Your task to perform on an android device: Add "macbook air" to the cart on newegg.com, then select checkout. Image 0: 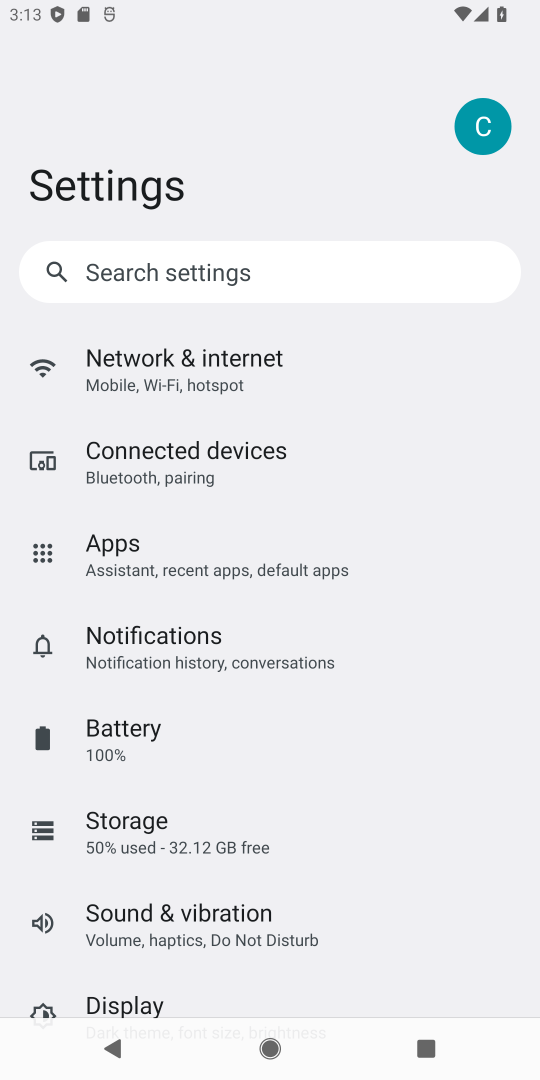
Step 0: press home button
Your task to perform on an android device: Add "macbook air" to the cart on newegg.com, then select checkout. Image 1: 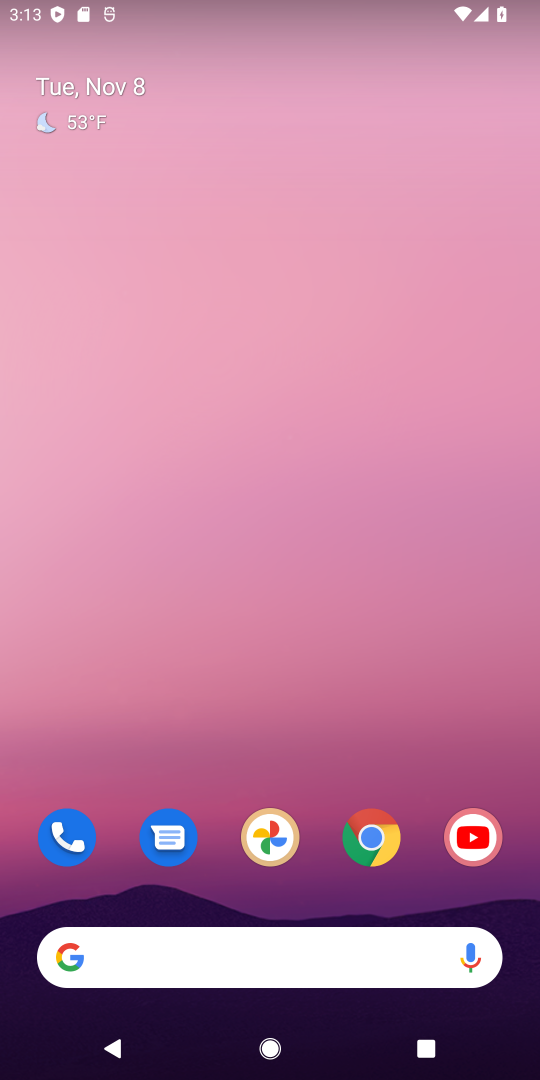
Step 1: click (367, 827)
Your task to perform on an android device: Add "macbook air" to the cart on newegg.com, then select checkout. Image 2: 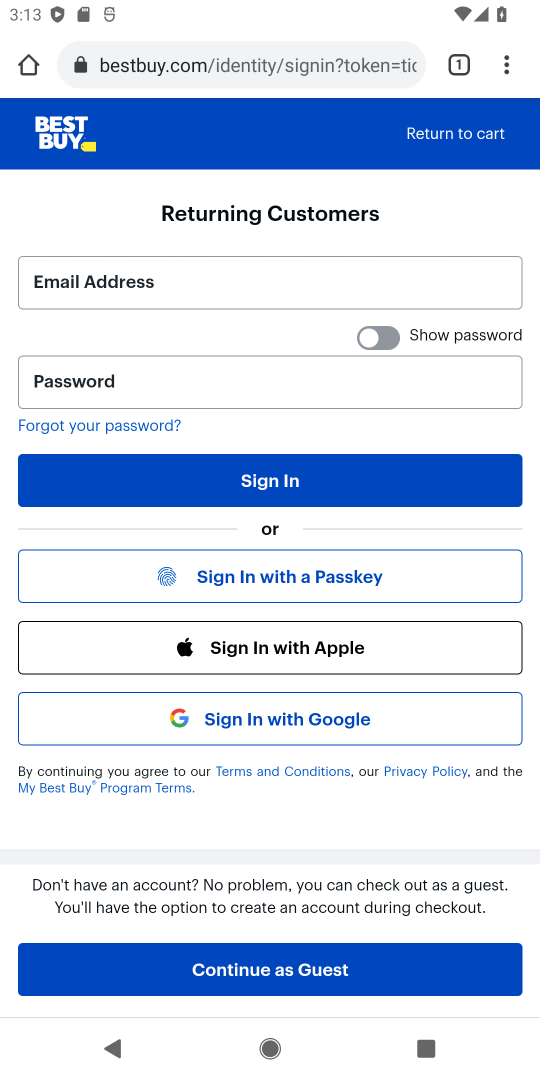
Step 2: click (245, 72)
Your task to perform on an android device: Add "macbook air" to the cart on newegg.com, then select checkout. Image 3: 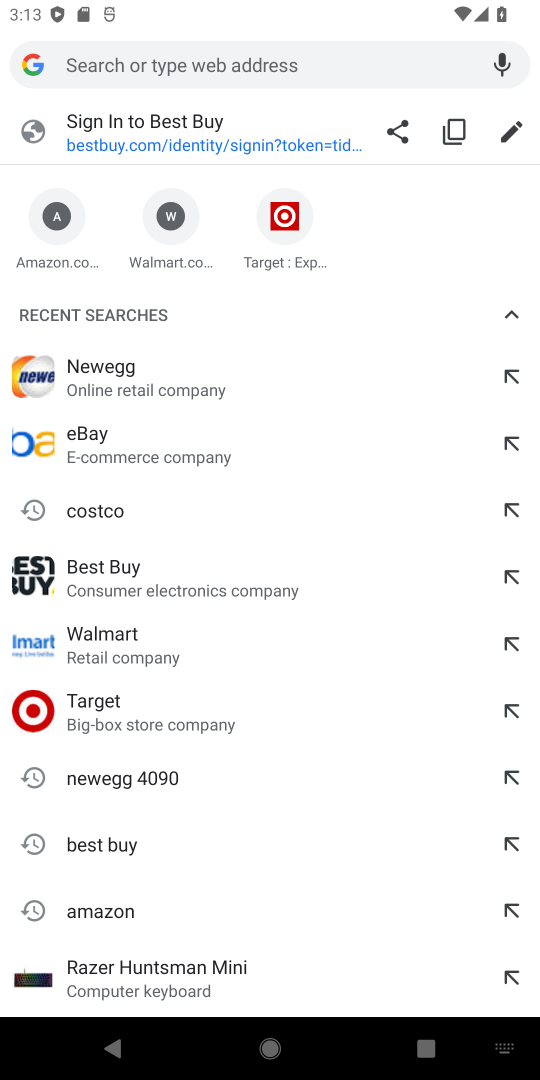
Step 3: click (90, 372)
Your task to perform on an android device: Add "macbook air" to the cart on newegg.com, then select checkout. Image 4: 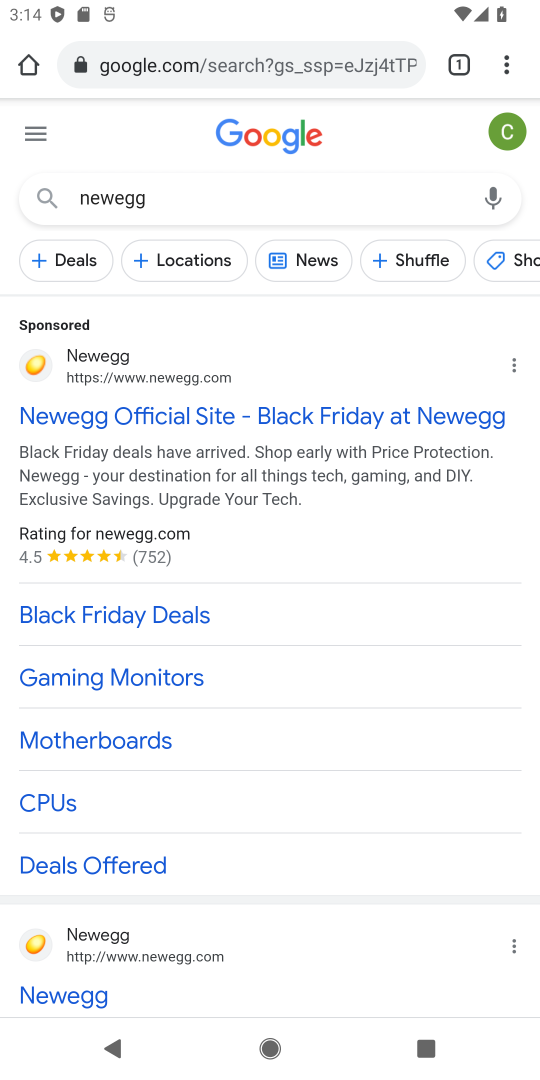
Step 4: click (54, 994)
Your task to perform on an android device: Add "macbook air" to the cart on newegg.com, then select checkout. Image 5: 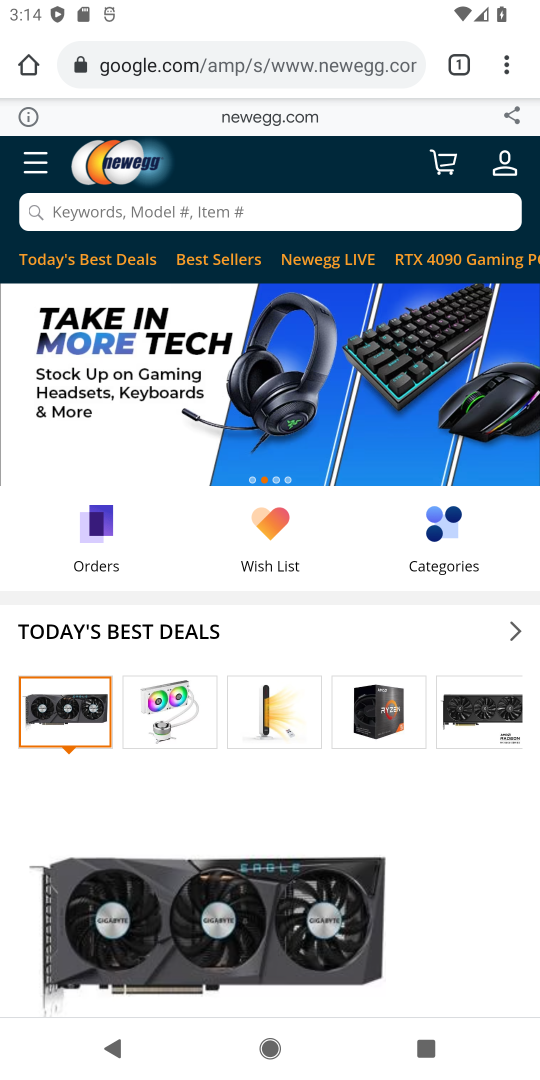
Step 5: click (133, 206)
Your task to perform on an android device: Add "macbook air" to the cart on newegg.com, then select checkout. Image 6: 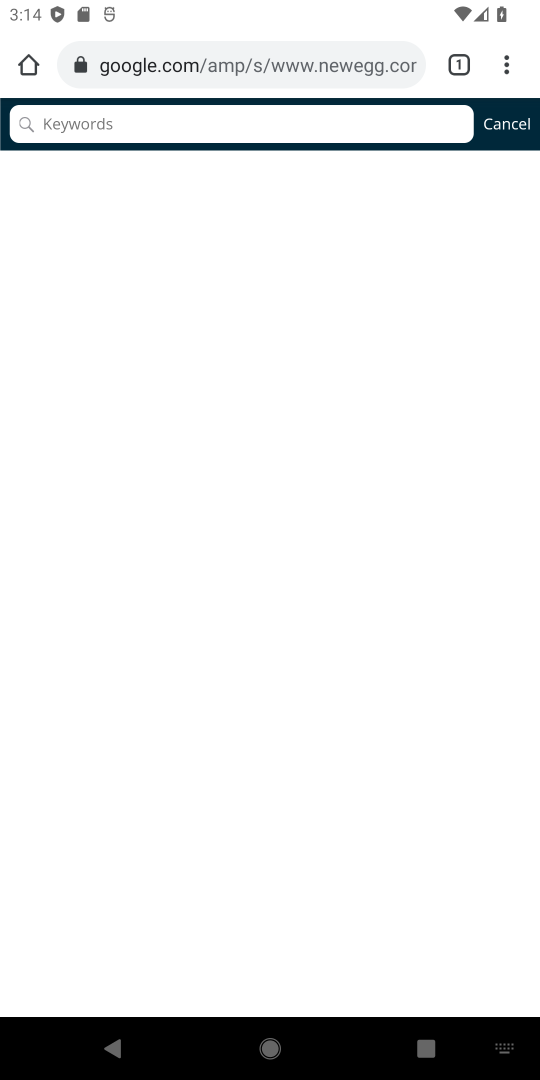
Step 6: type "macbook air"
Your task to perform on an android device: Add "macbook air" to the cart on newegg.com, then select checkout. Image 7: 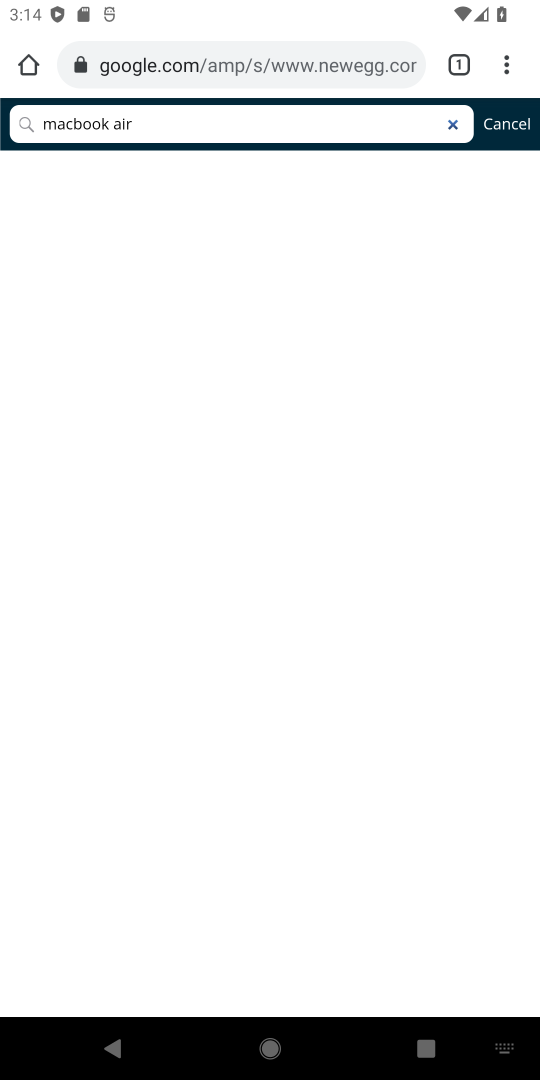
Step 7: click (458, 121)
Your task to perform on an android device: Add "macbook air" to the cart on newegg.com, then select checkout. Image 8: 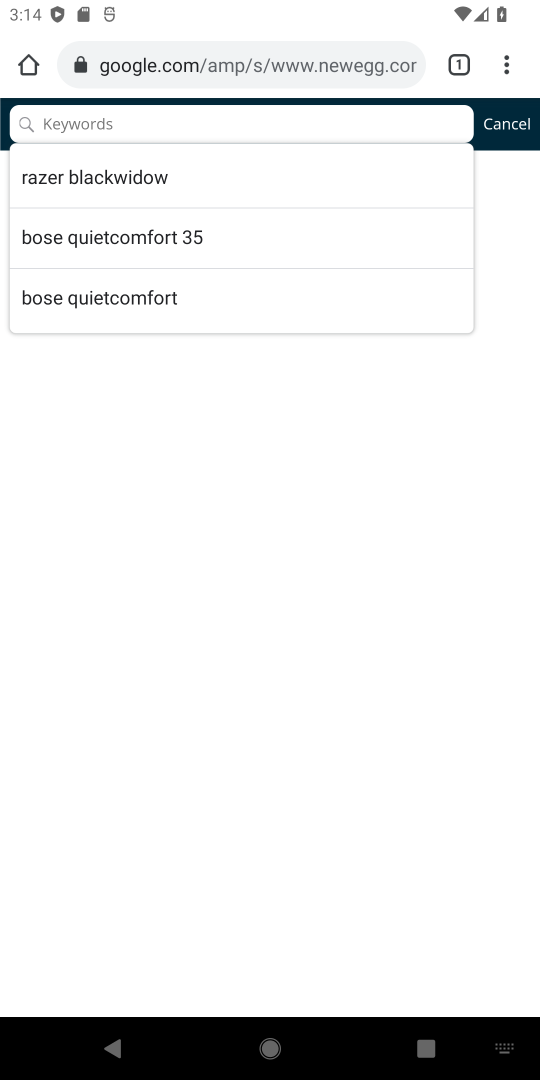
Step 8: press back button
Your task to perform on an android device: Add "macbook air" to the cart on newegg.com, then select checkout. Image 9: 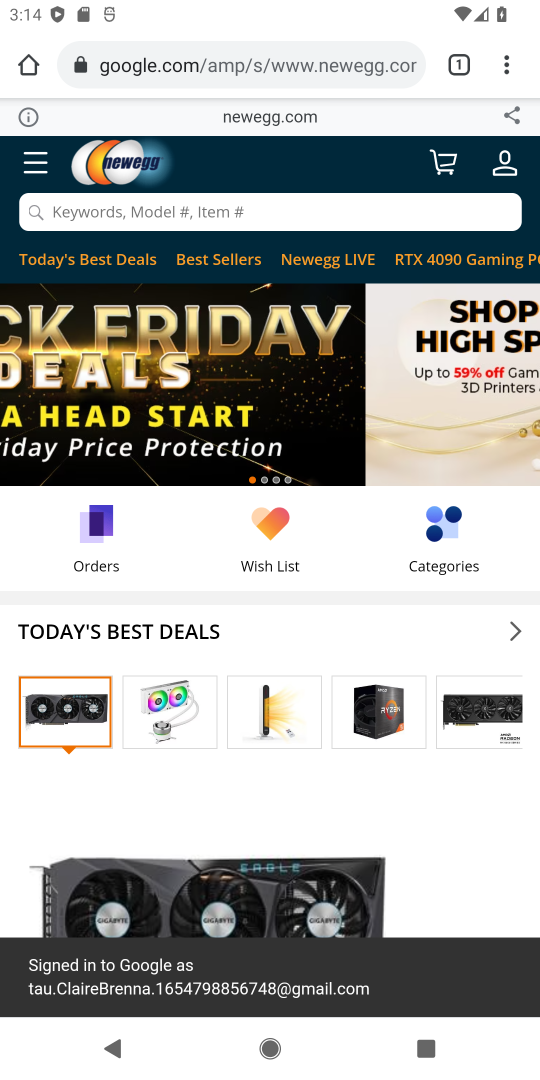
Step 9: click (230, 208)
Your task to perform on an android device: Add "macbook air" to the cart on newegg.com, then select checkout. Image 10: 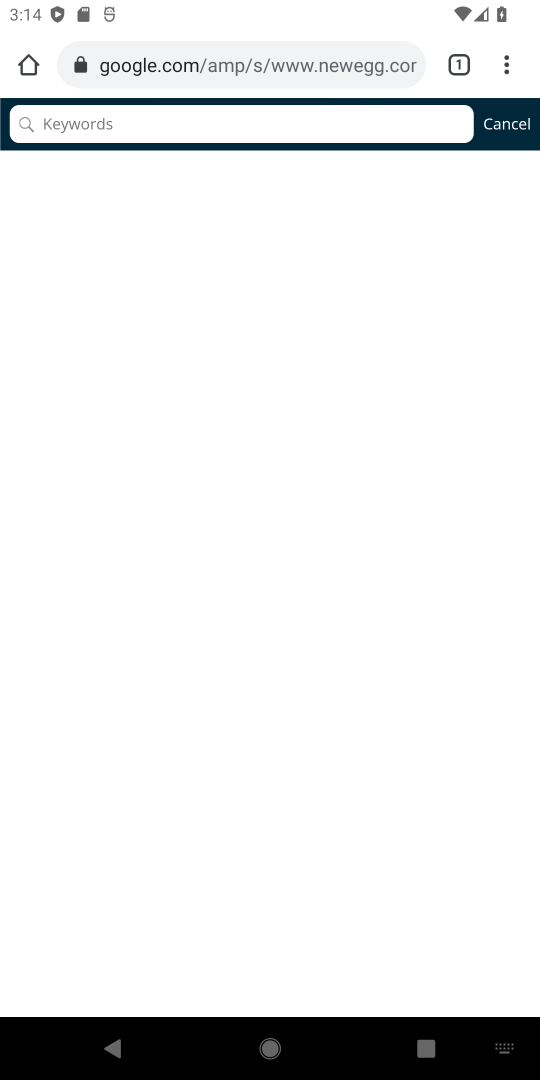
Step 10: type "macbook air"
Your task to perform on an android device: Add "macbook air" to the cart on newegg.com, then select checkout. Image 11: 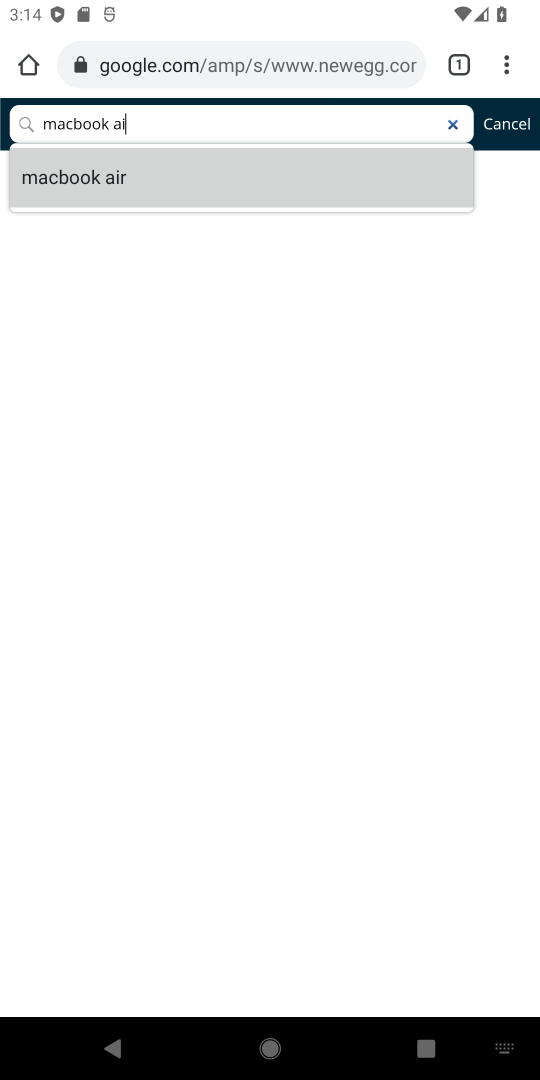
Step 11: type ""
Your task to perform on an android device: Add "macbook air" to the cart on newegg.com, then select checkout. Image 12: 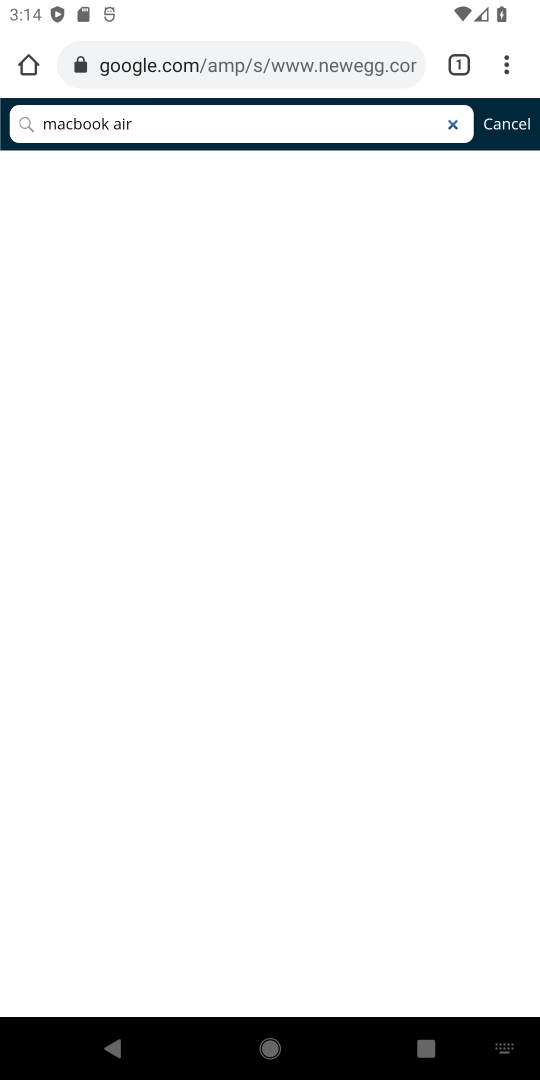
Step 12: type ""
Your task to perform on an android device: Add "macbook air" to the cart on newegg.com, then select checkout. Image 13: 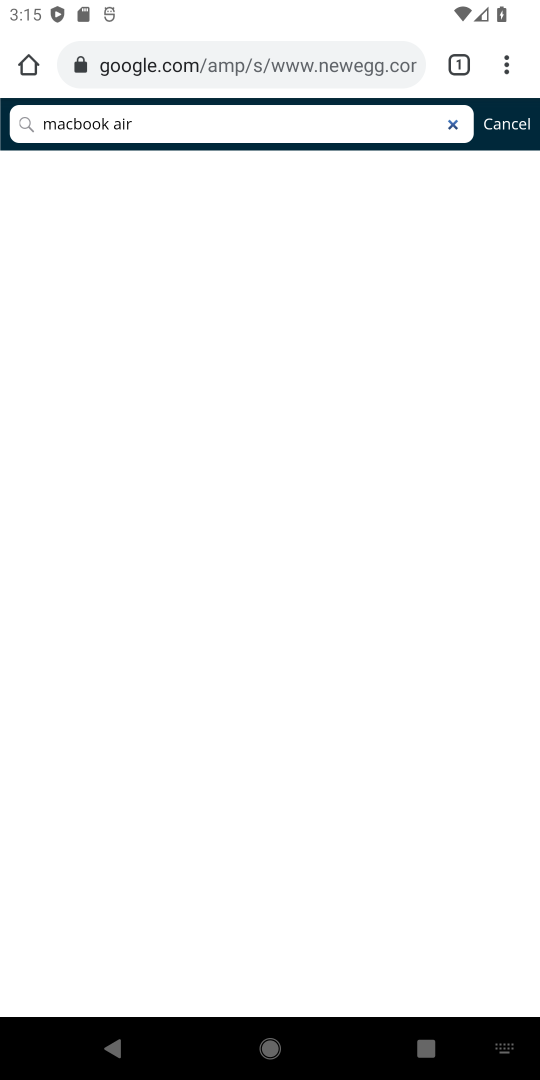
Step 13: press back button
Your task to perform on an android device: Add "macbook air" to the cart on newegg.com, then select checkout. Image 14: 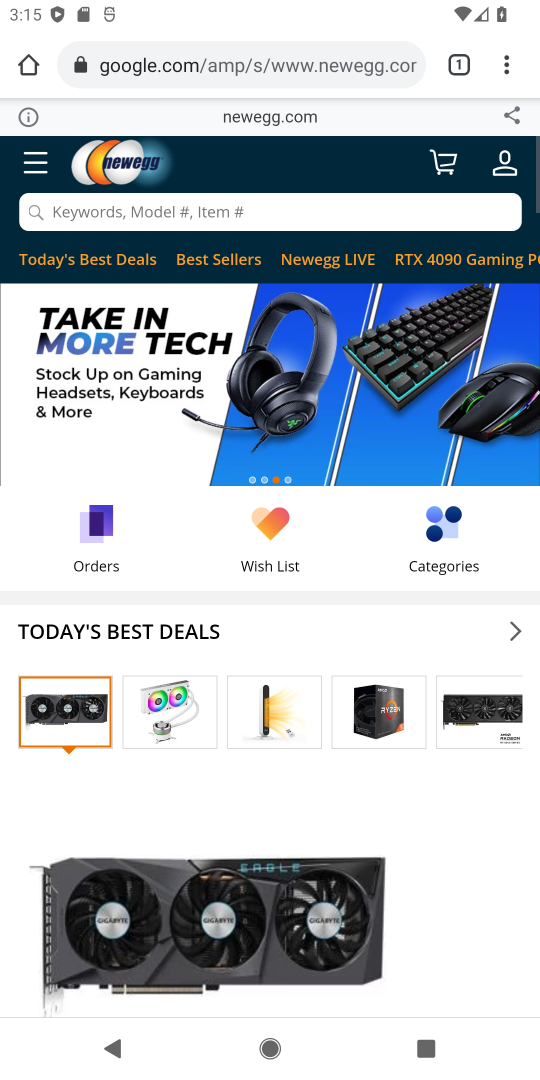
Step 14: click (320, 216)
Your task to perform on an android device: Add "macbook air" to the cart on newegg.com, then select checkout. Image 15: 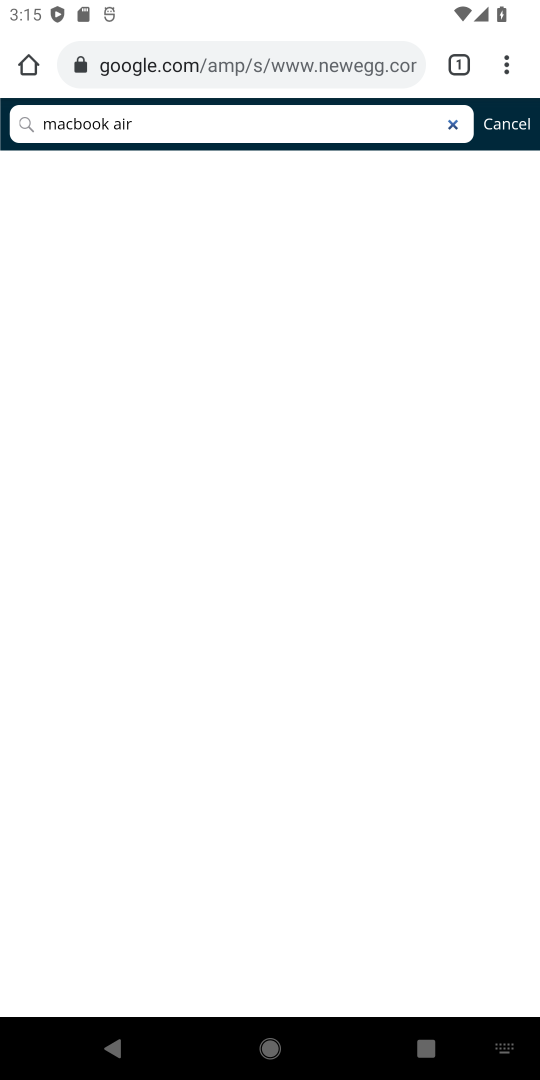
Step 15: click (451, 125)
Your task to perform on an android device: Add "macbook air" to the cart on newegg.com, then select checkout. Image 16: 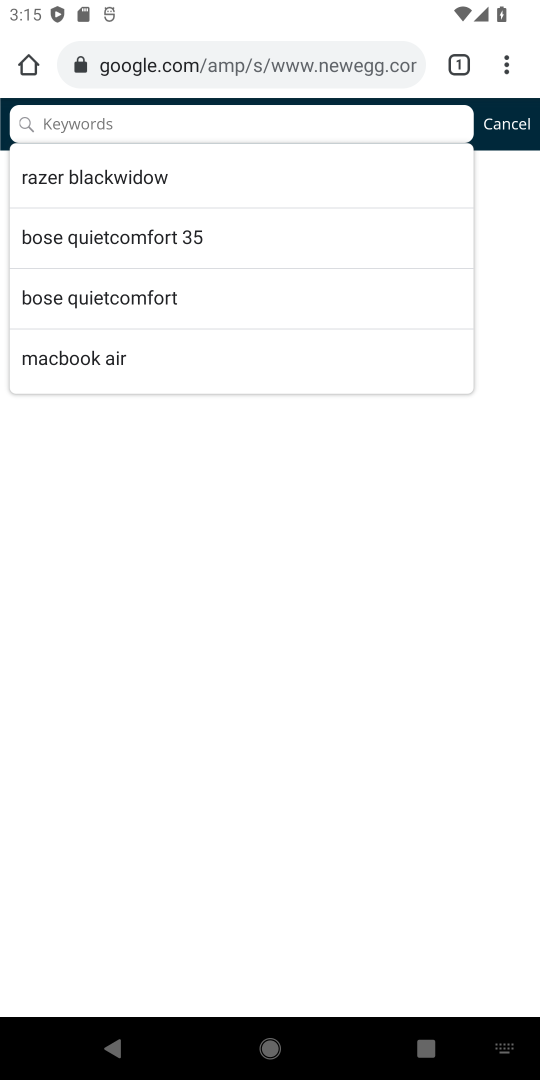
Step 16: type "macbook"
Your task to perform on an android device: Add "macbook air" to the cart on newegg.com, then select checkout. Image 17: 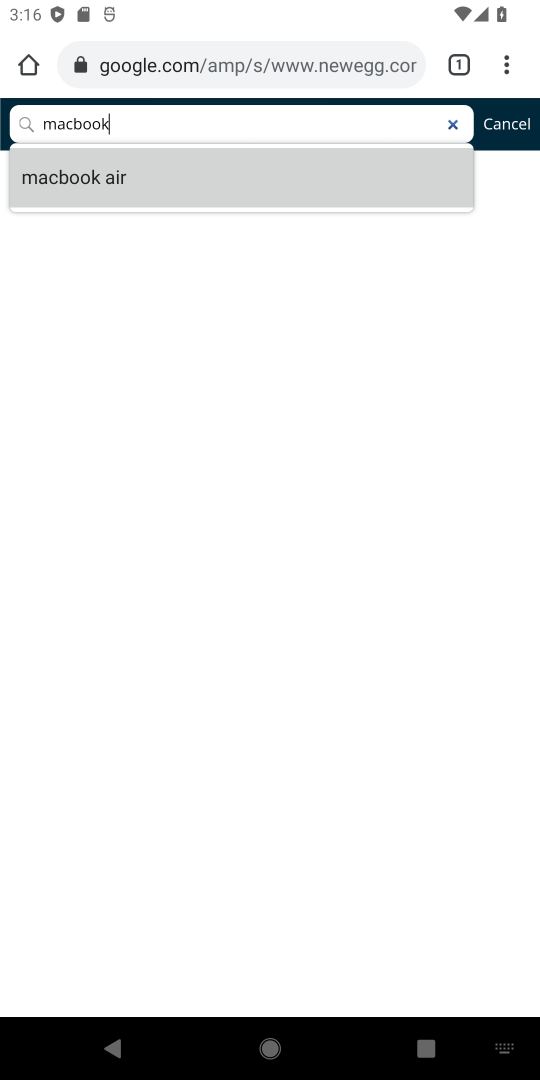
Step 17: type ""
Your task to perform on an android device: Add "macbook air" to the cart on newegg.com, then select checkout. Image 18: 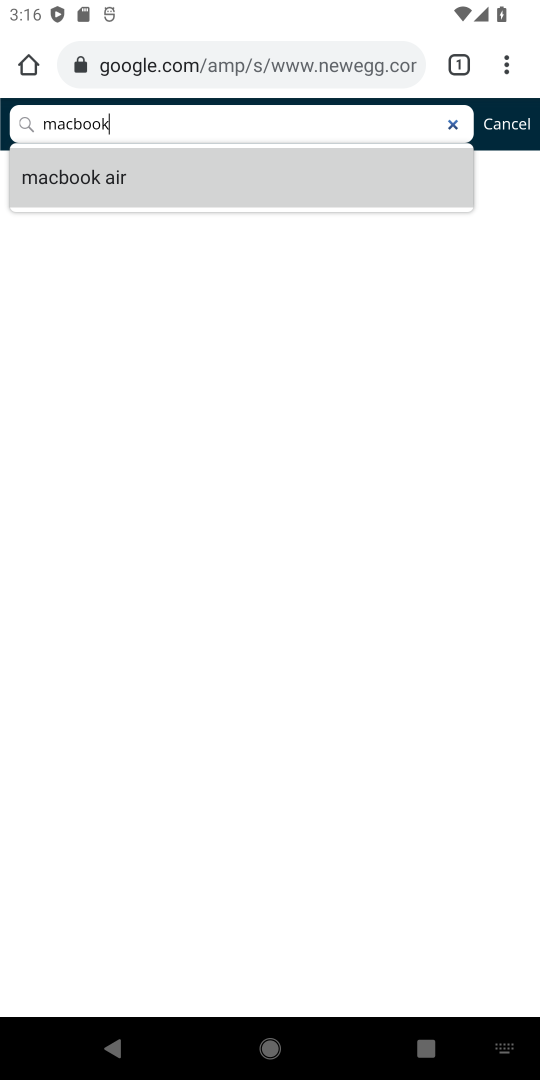
Step 18: type ""
Your task to perform on an android device: Add "macbook air" to the cart on newegg.com, then select checkout. Image 19: 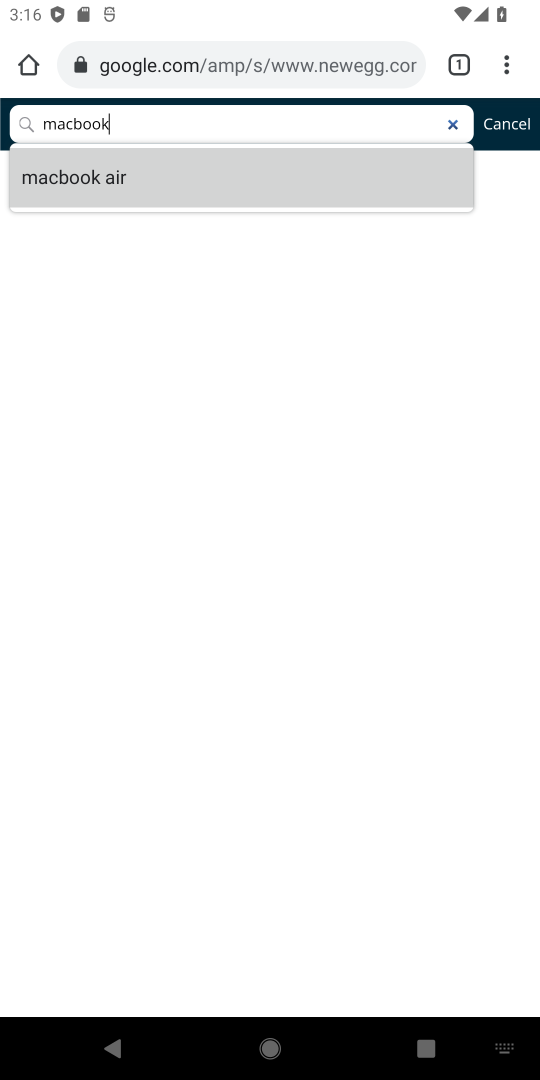
Step 19: click (88, 190)
Your task to perform on an android device: Add "macbook air" to the cart on newegg.com, then select checkout. Image 20: 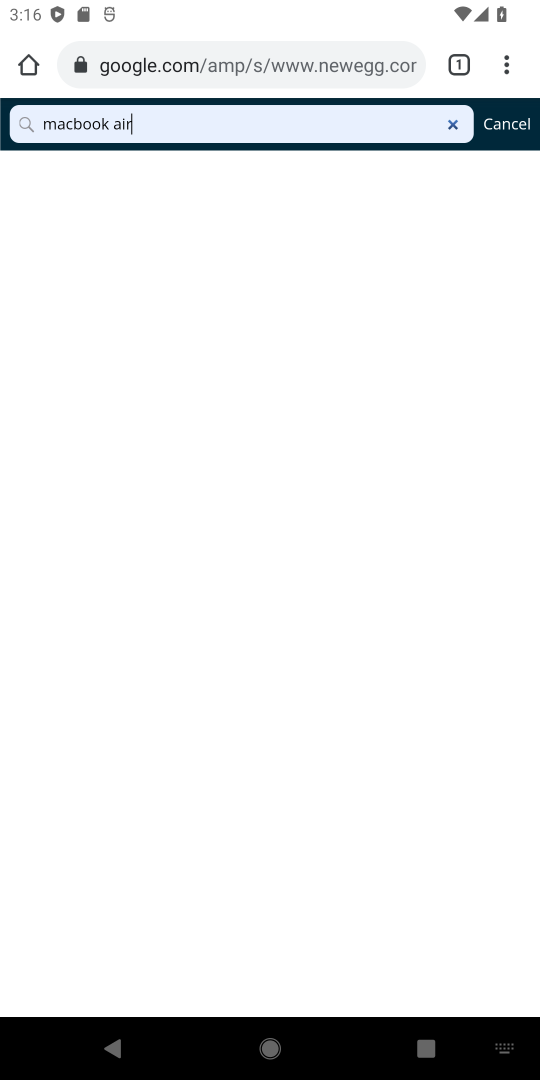
Step 20: task complete